Your task to perform on an android device: Go to CNN.com Image 0: 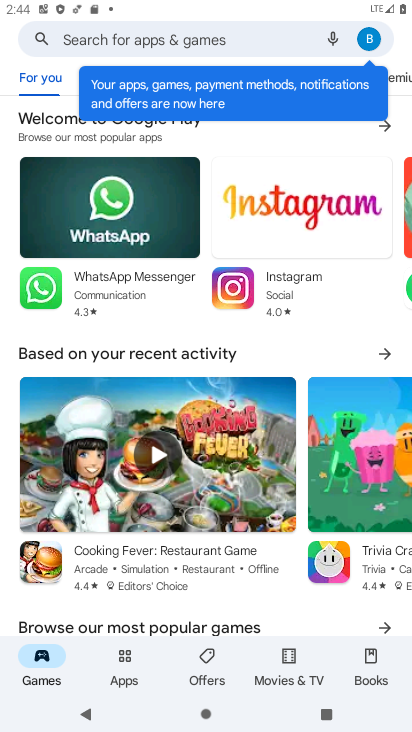
Step 0: press home button
Your task to perform on an android device: Go to CNN.com Image 1: 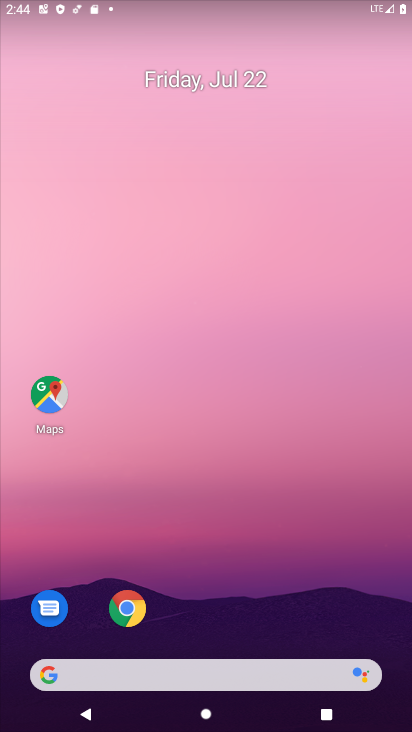
Step 1: click (122, 612)
Your task to perform on an android device: Go to CNN.com Image 2: 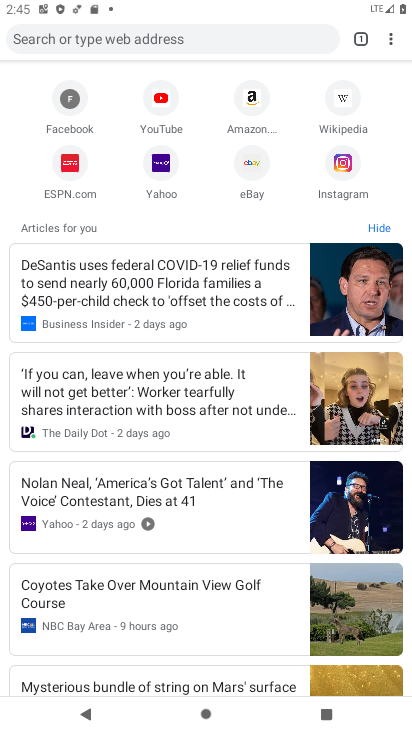
Step 2: click (200, 33)
Your task to perform on an android device: Go to CNN.com Image 3: 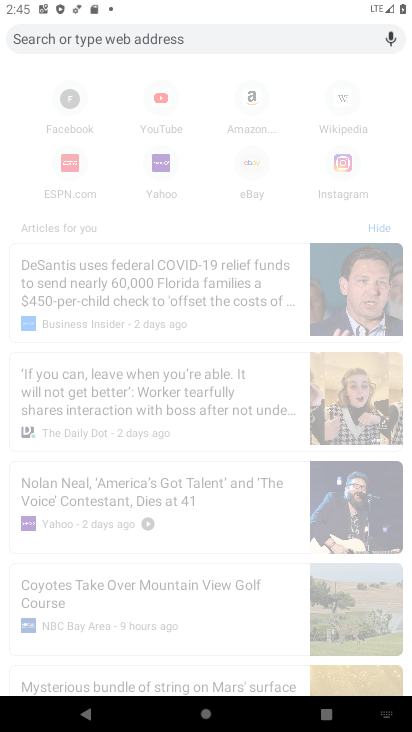
Step 3: type "cnn.com"
Your task to perform on an android device: Go to CNN.com Image 4: 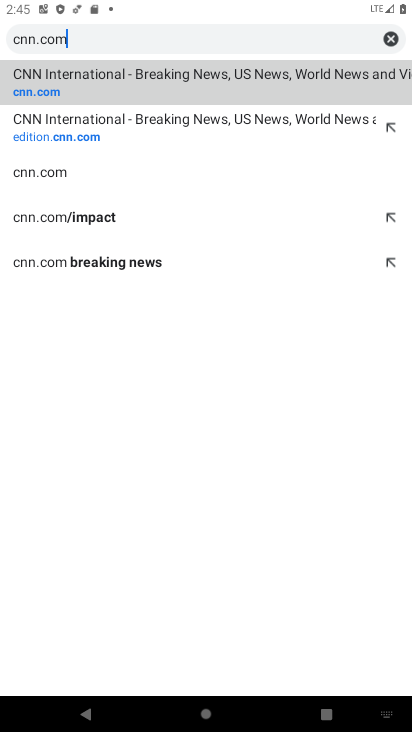
Step 4: click (161, 91)
Your task to perform on an android device: Go to CNN.com Image 5: 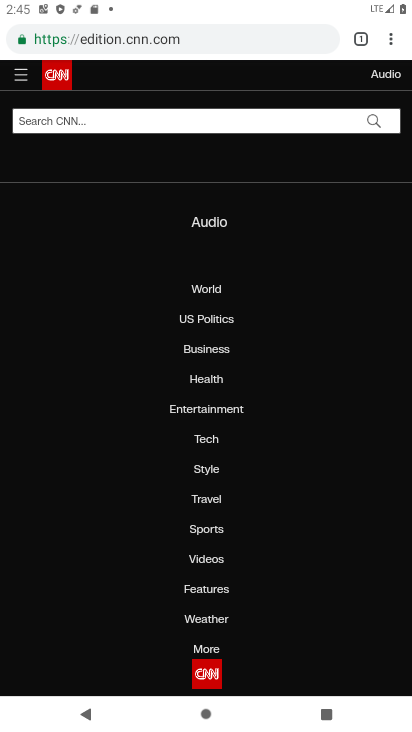
Step 5: task complete